Your task to perform on an android device: Open Maps and search for coffee Image 0: 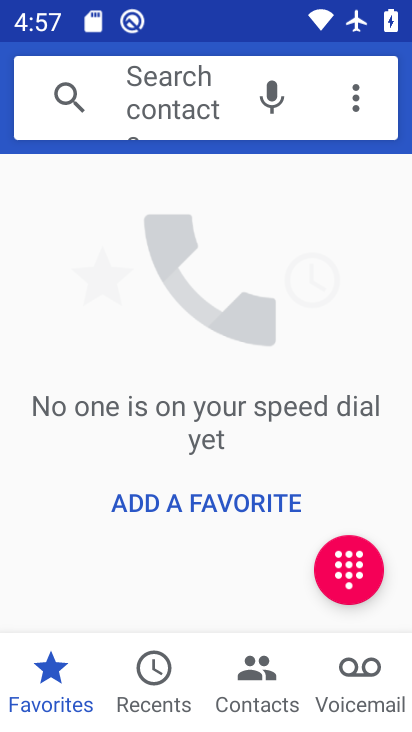
Step 0: press home button
Your task to perform on an android device: Open Maps and search for coffee Image 1: 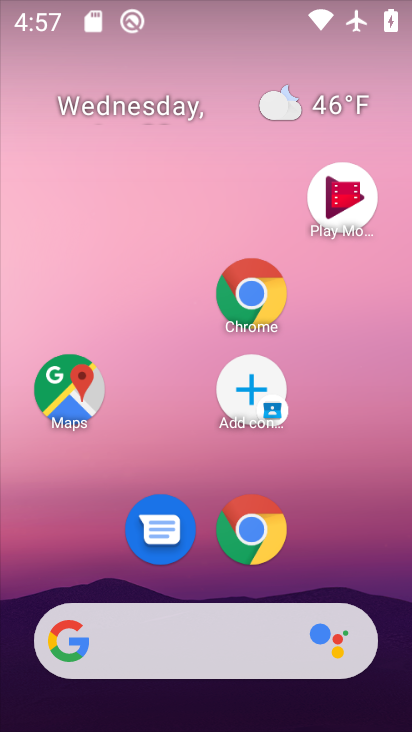
Step 1: click (70, 390)
Your task to perform on an android device: Open Maps and search for coffee Image 2: 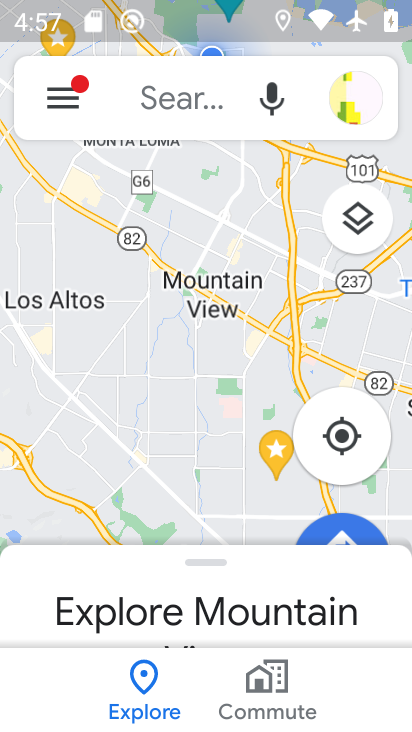
Step 2: click (165, 93)
Your task to perform on an android device: Open Maps and search for coffee Image 3: 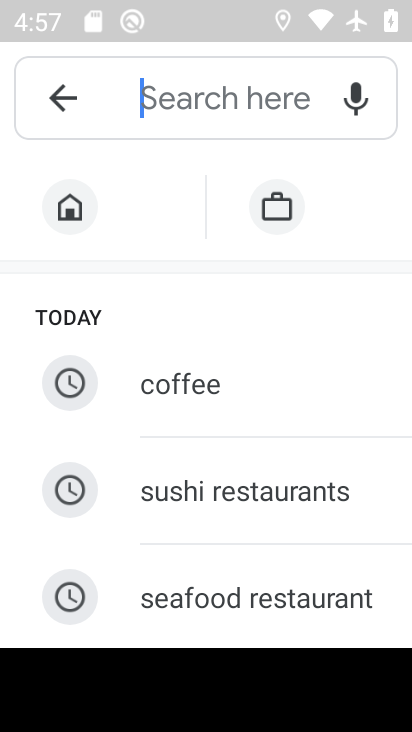
Step 3: type "c"
Your task to perform on an android device: Open Maps and search for coffee Image 4: 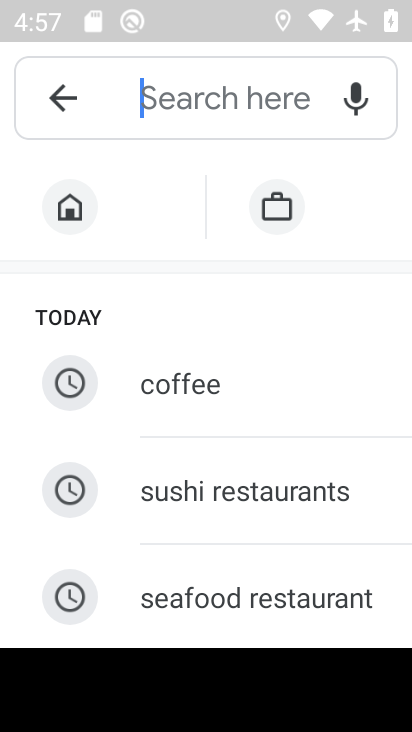
Step 4: click (170, 390)
Your task to perform on an android device: Open Maps and search for coffee Image 5: 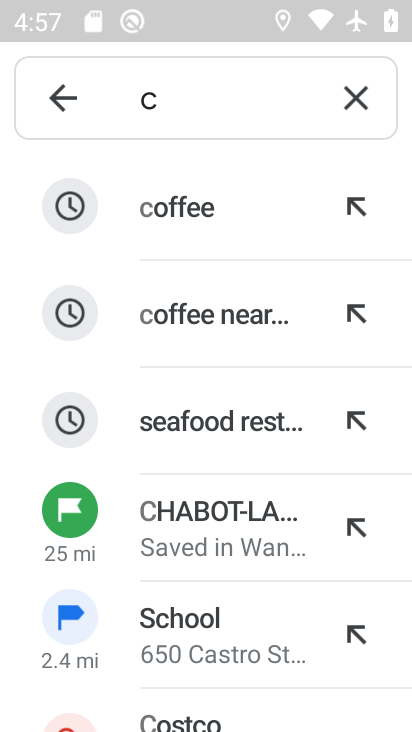
Step 5: click (152, 226)
Your task to perform on an android device: Open Maps and search for coffee Image 6: 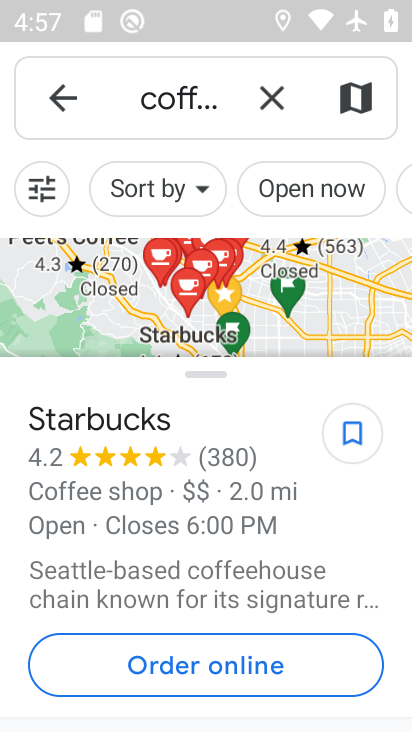
Step 6: task complete